Your task to perform on an android device: Go to settings Image 0: 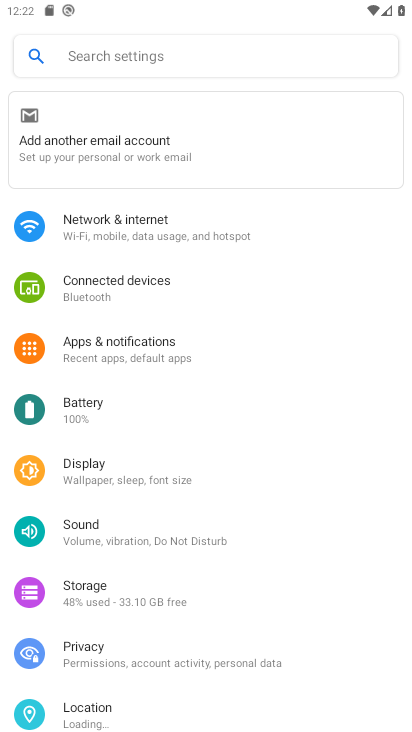
Step 0: drag from (299, 244) to (299, 571)
Your task to perform on an android device: Go to settings Image 1: 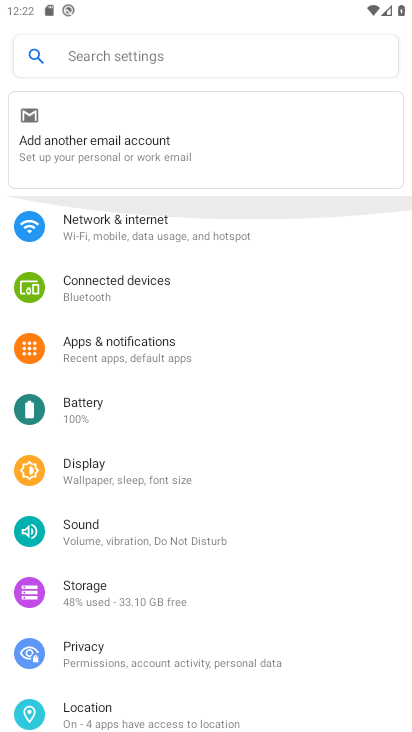
Step 1: task complete